Your task to perform on an android device: Open Google Chrome and open the bookmarks view Image 0: 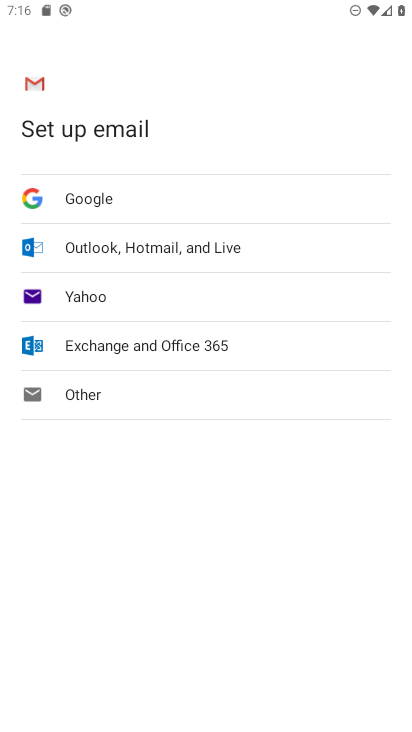
Step 0: press home button
Your task to perform on an android device: Open Google Chrome and open the bookmarks view Image 1: 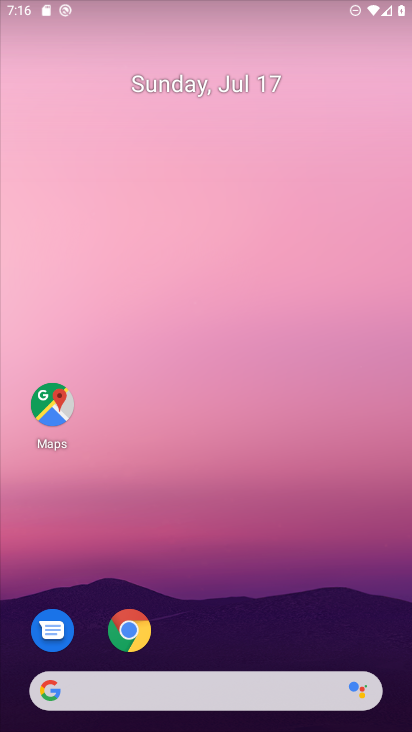
Step 1: drag from (380, 665) to (269, 114)
Your task to perform on an android device: Open Google Chrome and open the bookmarks view Image 2: 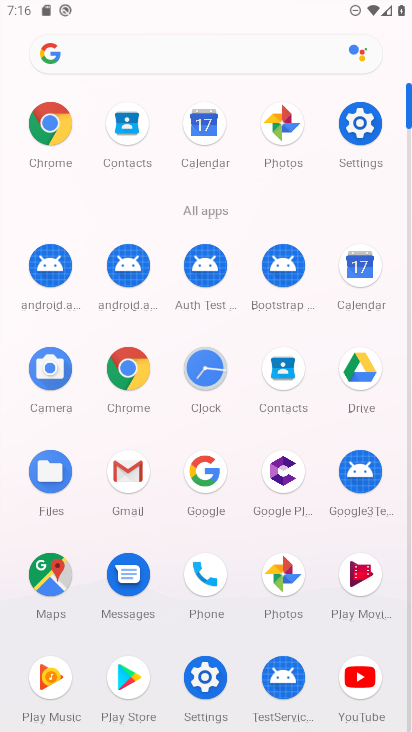
Step 2: click (115, 376)
Your task to perform on an android device: Open Google Chrome and open the bookmarks view Image 3: 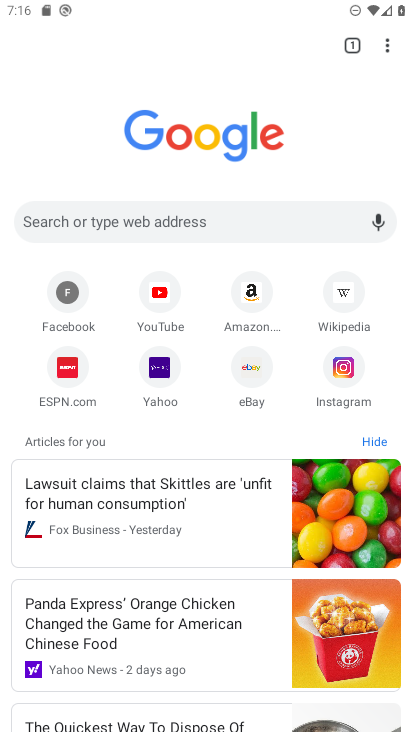
Step 3: click (381, 43)
Your task to perform on an android device: Open Google Chrome and open the bookmarks view Image 4: 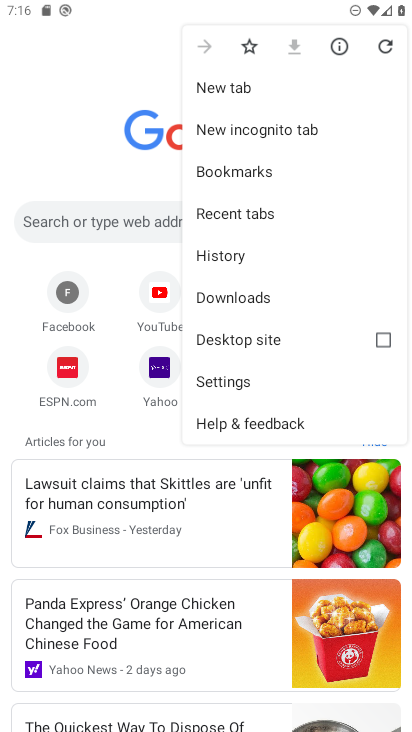
Step 4: click (228, 176)
Your task to perform on an android device: Open Google Chrome and open the bookmarks view Image 5: 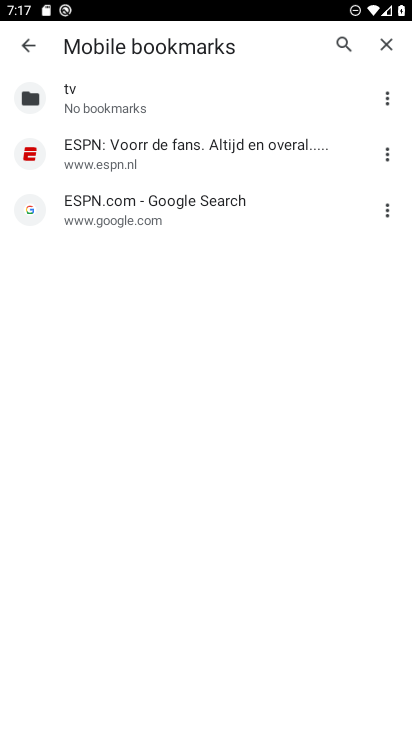
Step 5: task complete